Your task to perform on an android device: Open maps Image 0: 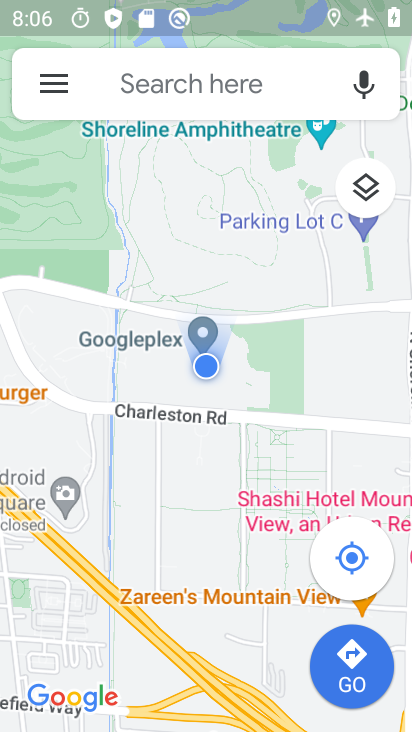
Step 0: task complete